Your task to perform on an android device: Go to privacy settings Image 0: 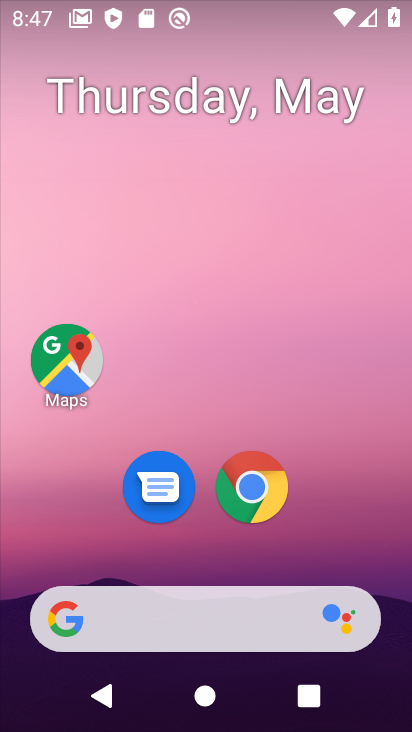
Step 0: drag from (214, 562) to (160, 27)
Your task to perform on an android device: Go to privacy settings Image 1: 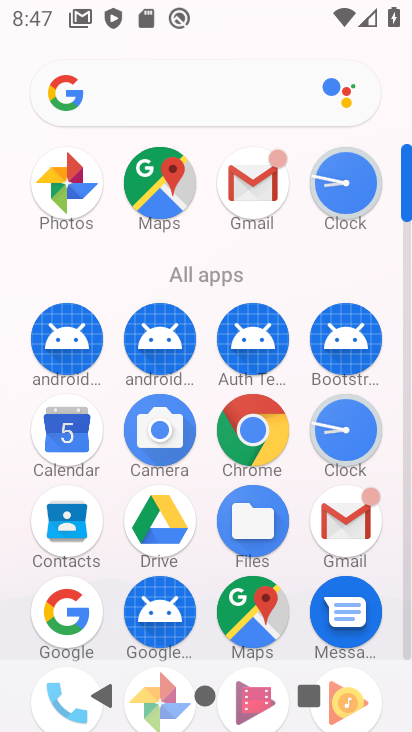
Step 1: drag from (112, 564) to (88, 179)
Your task to perform on an android device: Go to privacy settings Image 2: 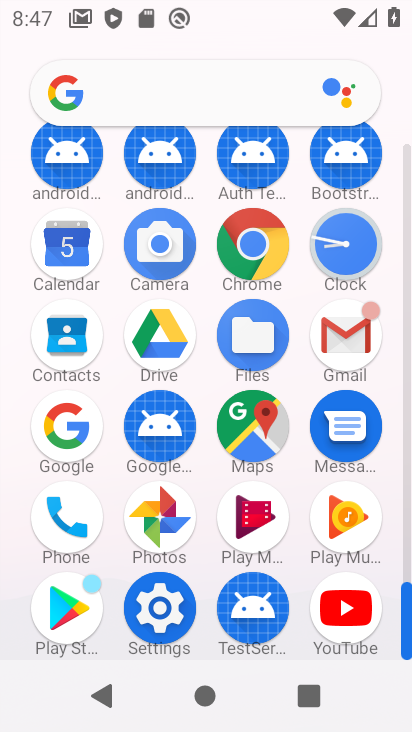
Step 2: click (152, 590)
Your task to perform on an android device: Go to privacy settings Image 3: 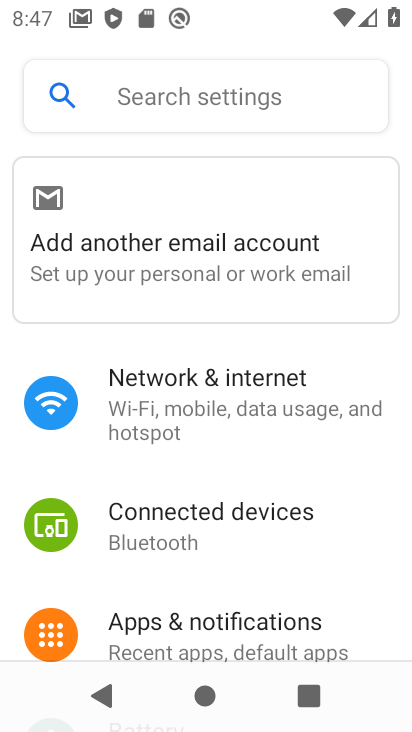
Step 3: drag from (152, 590) to (99, 245)
Your task to perform on an android device: Go to privacy settings Image 4: 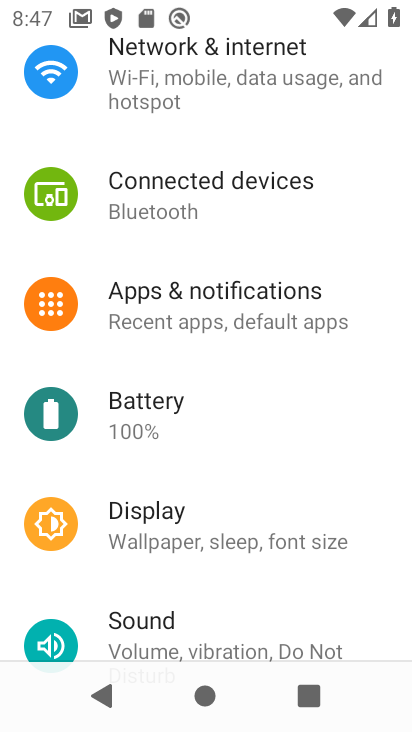
Step 4: drag from (98, 474) to (76, 23)
Your task to perform on an android device: Go to privacy settings Image 5: 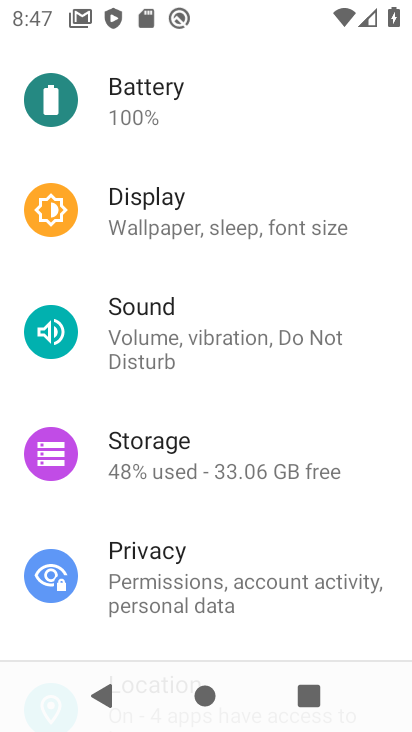
Step 5: click (145, 557)
Your task to perform on an android device: Go to privacy settings Image 6: 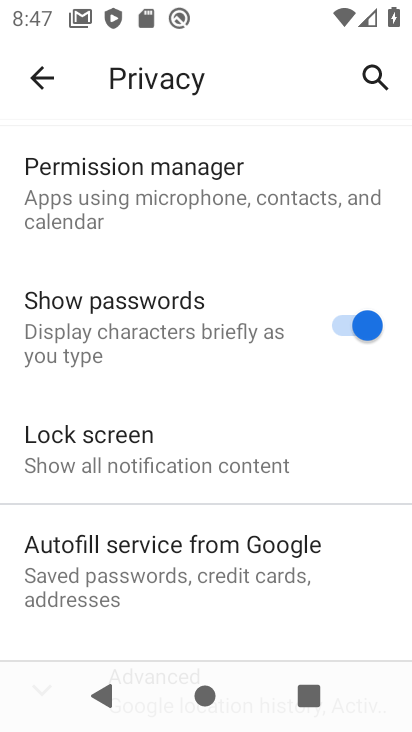
Step 6: task complete